Your task to perform on an android device: turn off airplane mode Image 0: 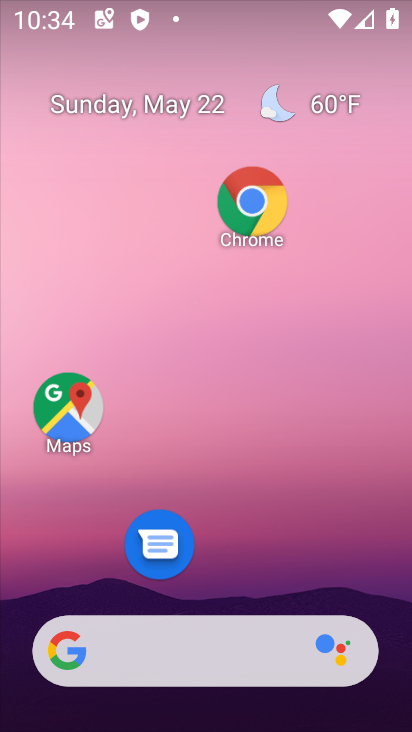
Step 0: drag from (286, 539) to (291, 0)
Your task to perform on an android device: turn off airplane mode Image 1: 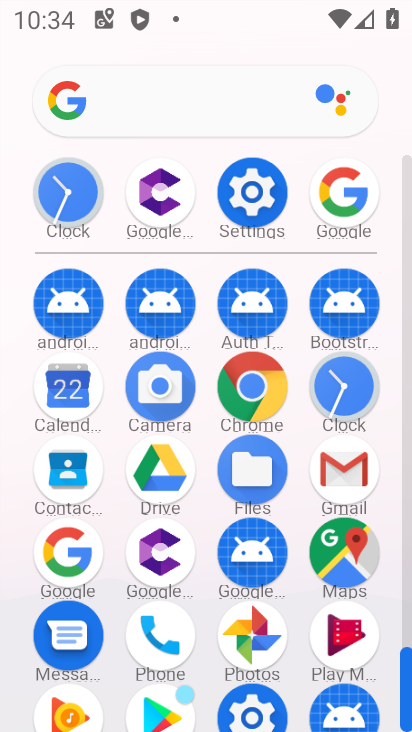
Step 1: click (250, 181)
Your task to perform on an android device: turn off airplane mode Image 2: 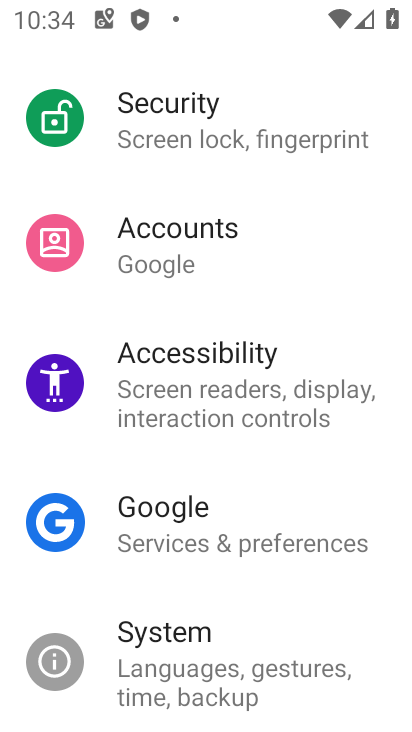
Step 2: drag from (246, 151) to (296, 610)
Your task to perform on an android device: turn off airplane mode Image 3: 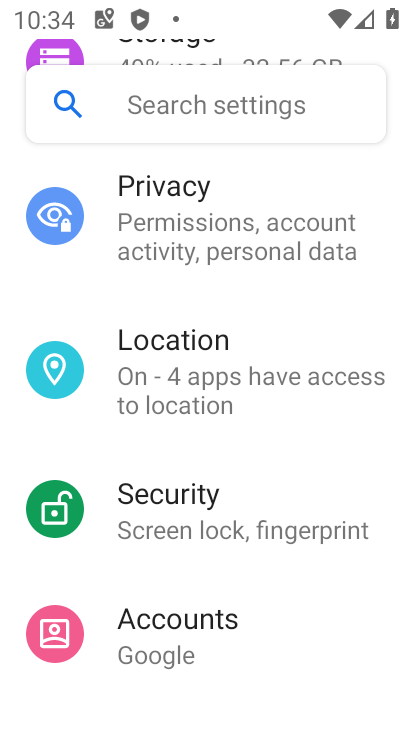
Step 3: drag from (181, 198) to (263, 711)
Your task to perform on an android device: turn off airplane mode Image 4: 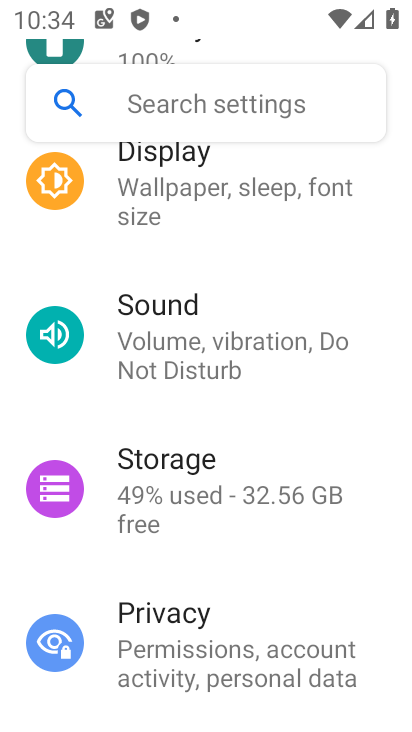
Step 4: drag from (133, 167) to (296, 627)
Your task to perform on an android device: turn off airplane mode Image 5: 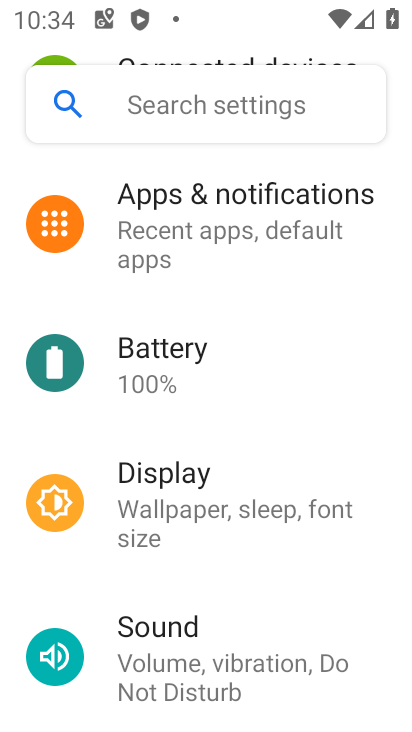
Step 5: drag from (150, 154) to (327, 658)
Your task to perform on an android device: turn off airplane mode Image 6: 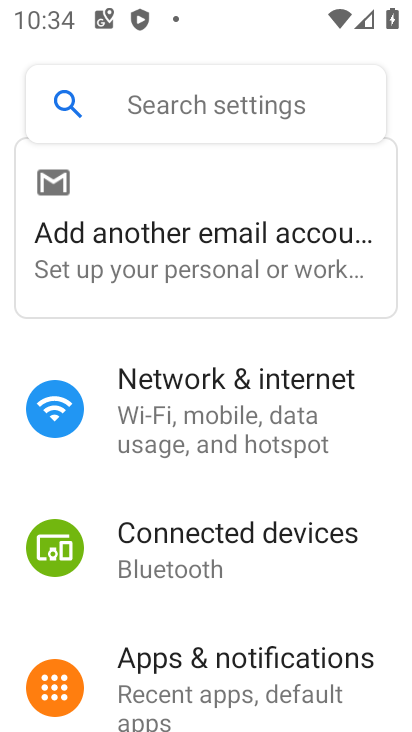
Step 6: click (204, 396)
Your task to perform on an android device: turn off airplane mode Image 7: 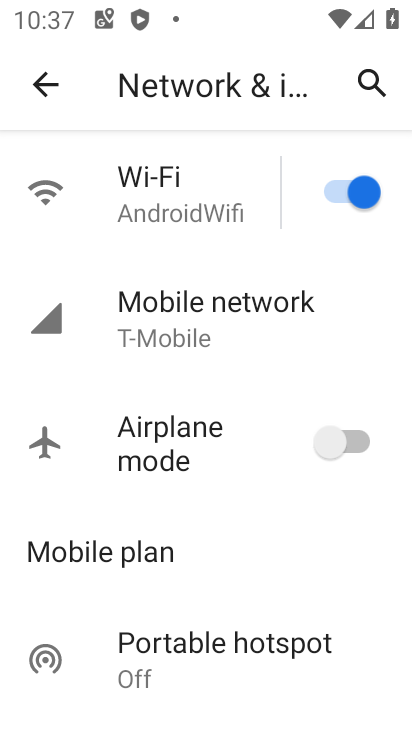
Step 7: task complete